Your task to perform on an android device: Search for pizza restaurants on Maps Image 0: 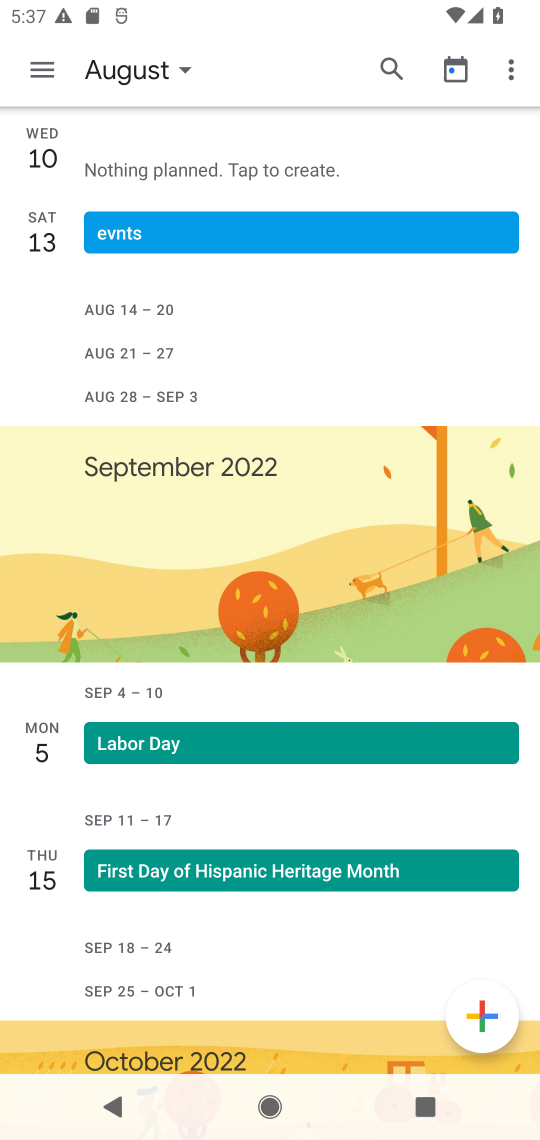
Step 0: press home button
Your task to perform on an android device: Search for pizza restaurants on Maps Image 1: 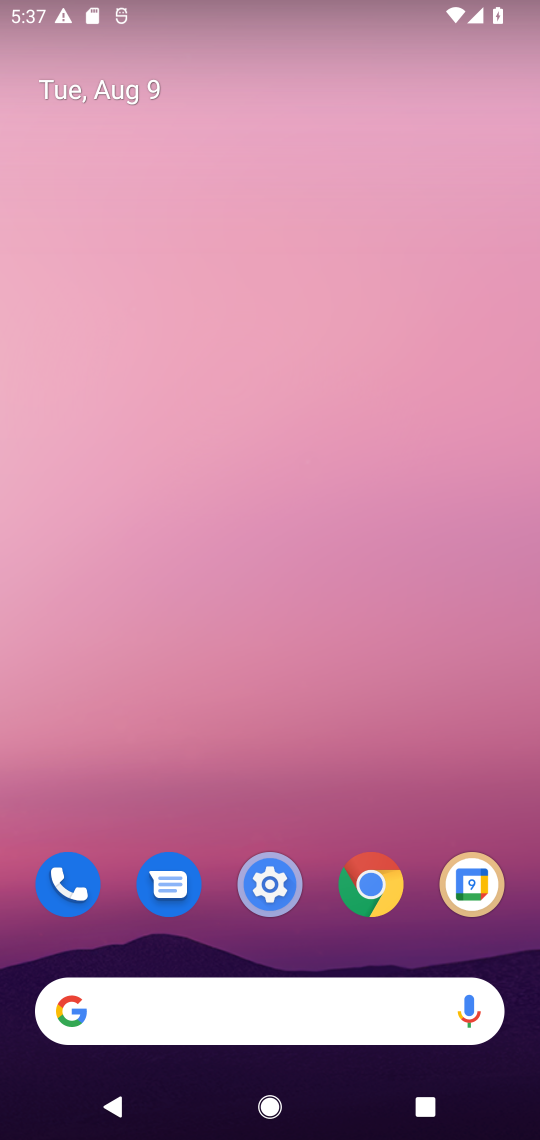
Step 1: drag from (243, 1026) to (385, 244)
Your task to perform on an android device: Search for pizza restaurants on Maps Image 2: 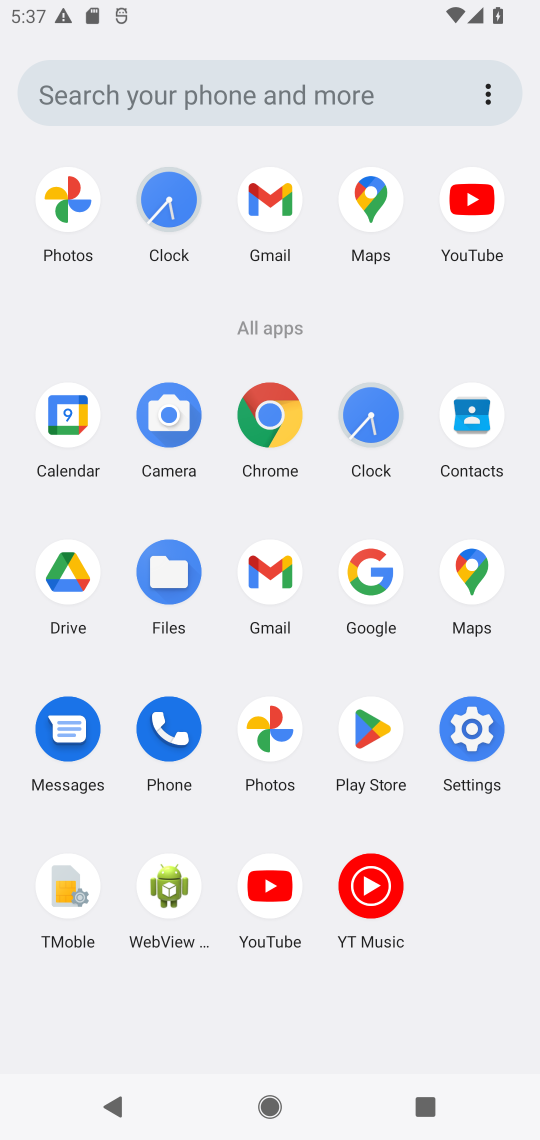
Step 2: click (369, 192)
Your task to perform on an android device: Search for pizza restaurants on Maps Image 3: 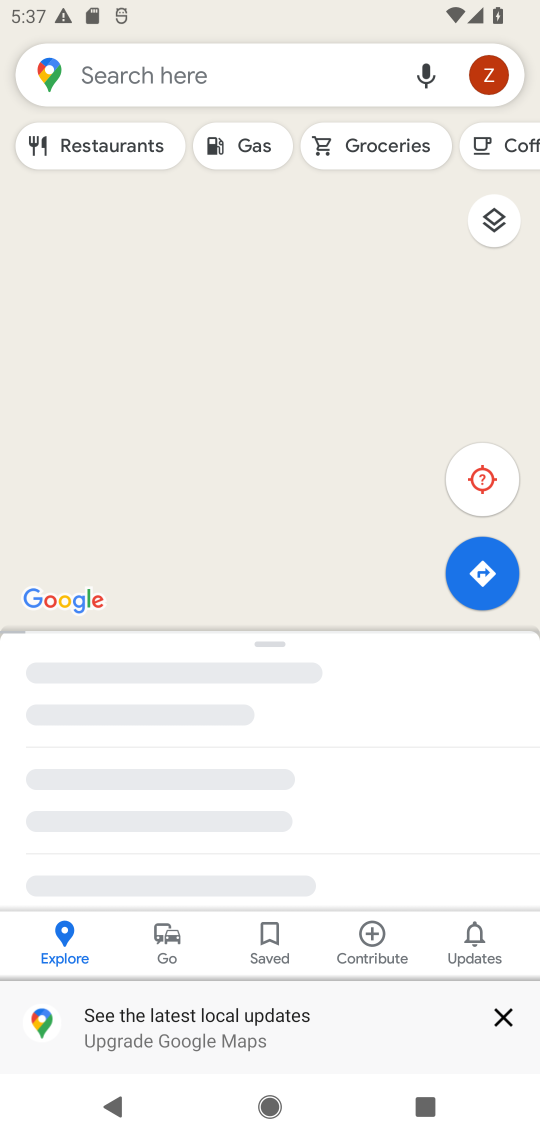
Step 3: click (321, 77)
Your task to perform on an android device: Search for pizza restaurants on Maps Image 4: 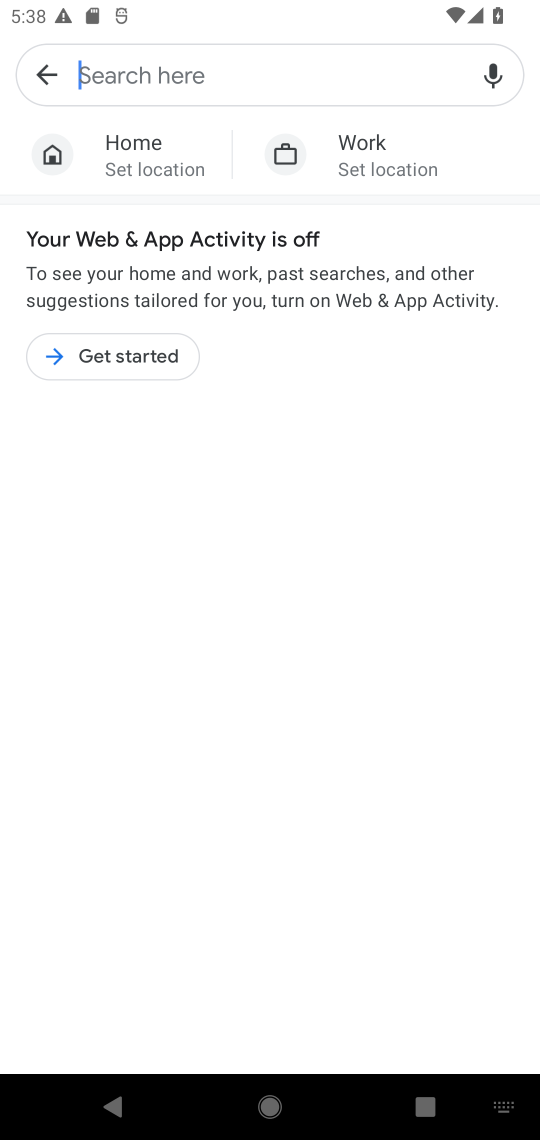
Step 4: type "pizza restaurants"
Your task to perform on an android device: Search for pizza restaurants on Maps Image 5: 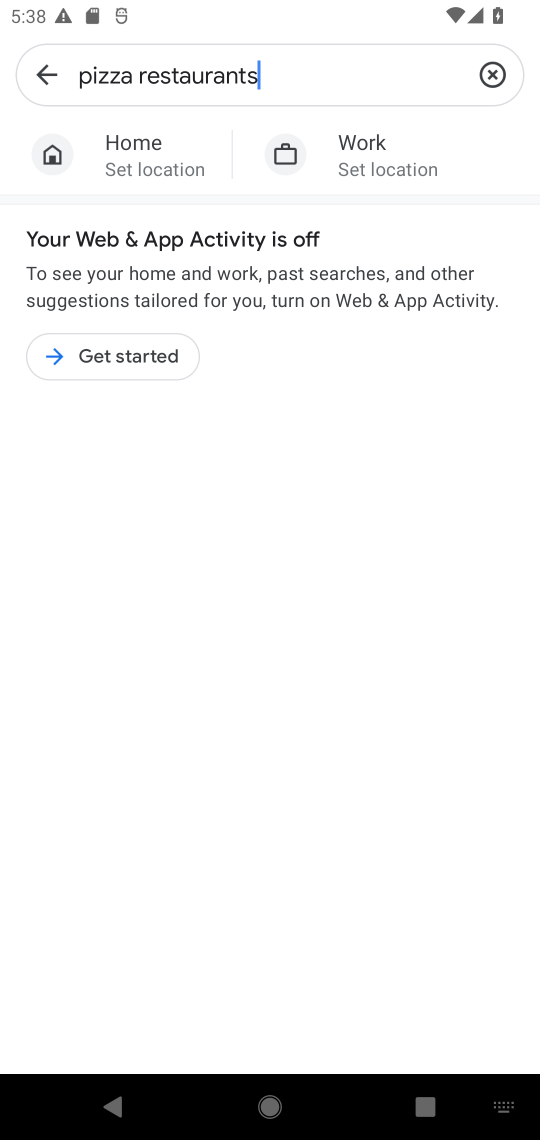
Step 5: click (167, 352)
Your task to perform on an android device: Search for pizza restaurants on Maps Image 6: 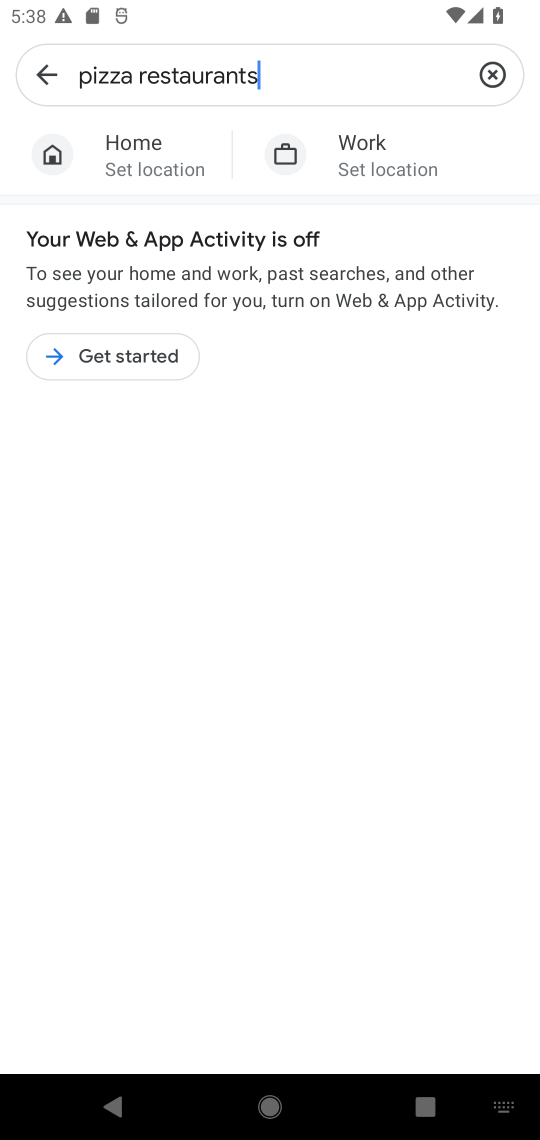
Step 6: click (100, 355)
Your task to perform on an android device: Search for pizza restaurants on Maps Image 7: 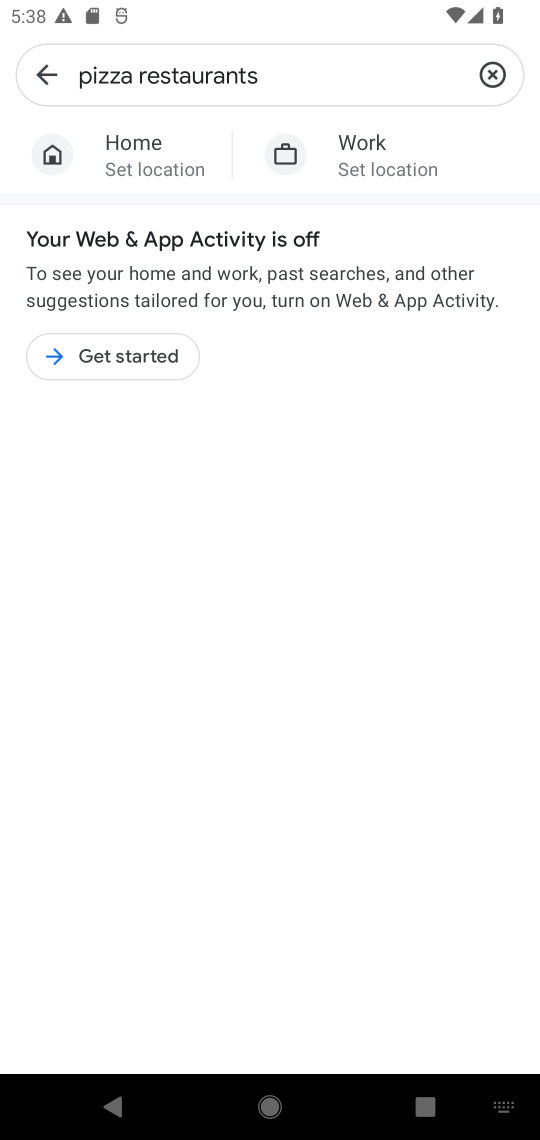
Step 7: click (87, 372)
Your task to perform on an android device: Search for pizza restaurants on Maps Image 8: 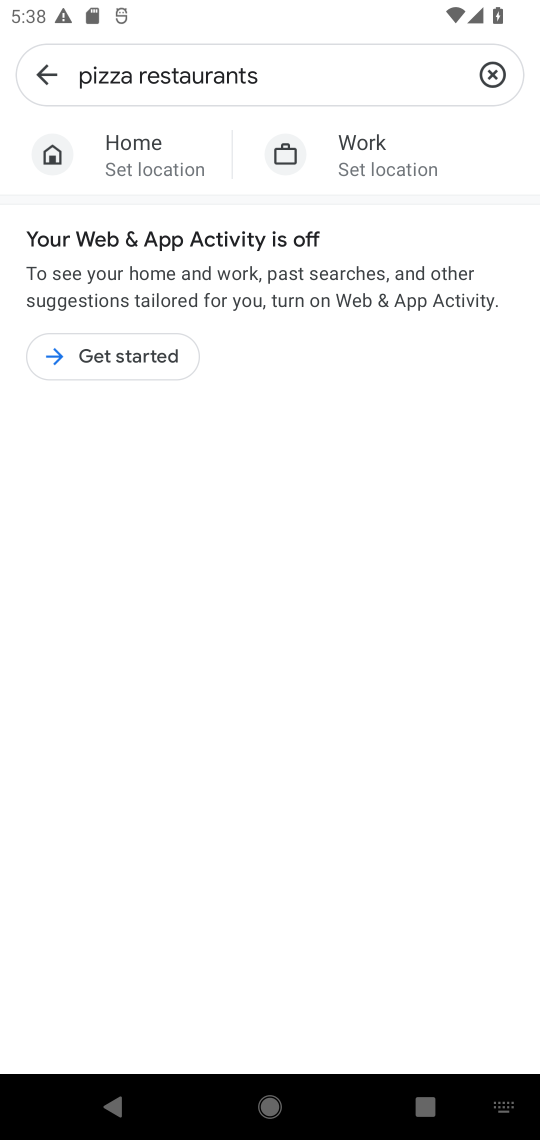
Step 8: click (89, 362)
Your task to perform on an android device: Search for pizza restaurants on Maps Image 9: 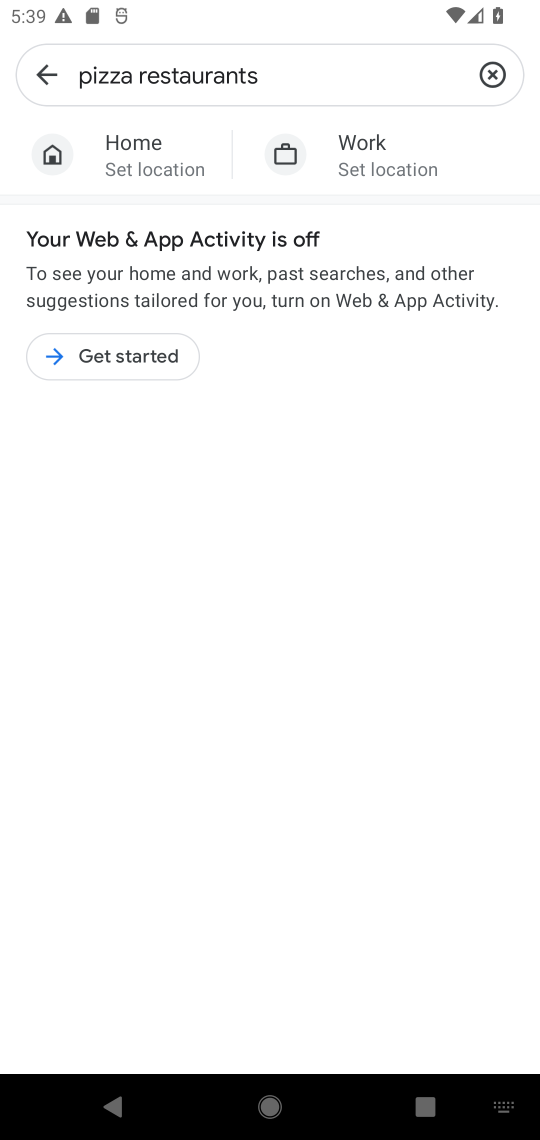
Step 9: task complete